Your task to perform on an android device: Open the calendar and show me this week's events Image 0: 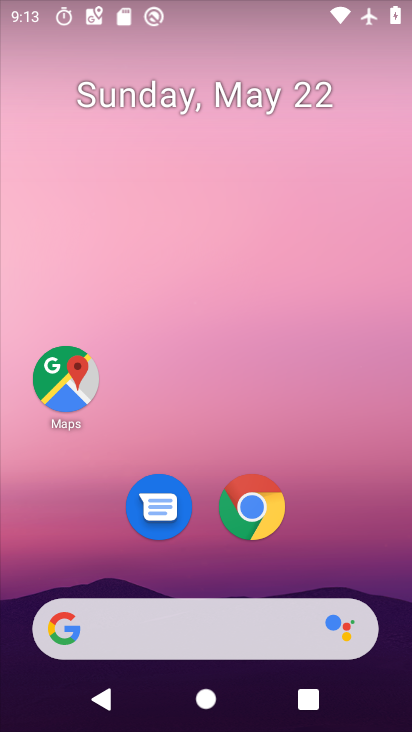
Step 0: click (256, 115)
Your task to perform on an android device: Open the calendar and show me this week's events Image 1: 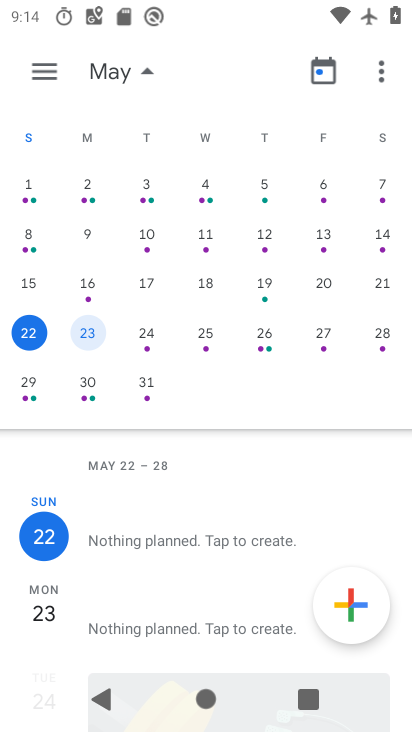
Step 1: click (49, 73)
Your task to perform on an android device: Open the calendar and show me this week's events Image 2: 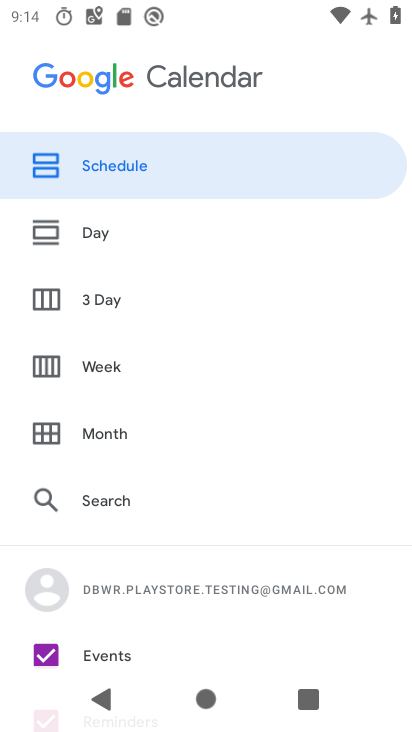
Step 2: drag from (145, 631) to (248, 109)
Your task to perform on an android device: Open the calendar and show me this week's events Image 3: 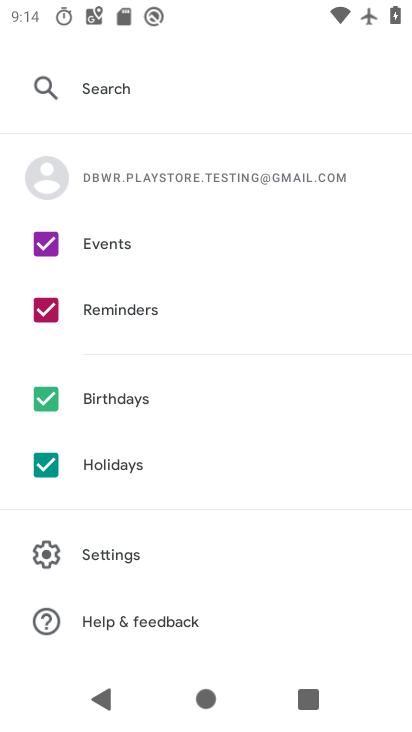
Step 3: click (50, 460)
Your task to perform on an android device: Open the calendar and show me this week's events Image 4: 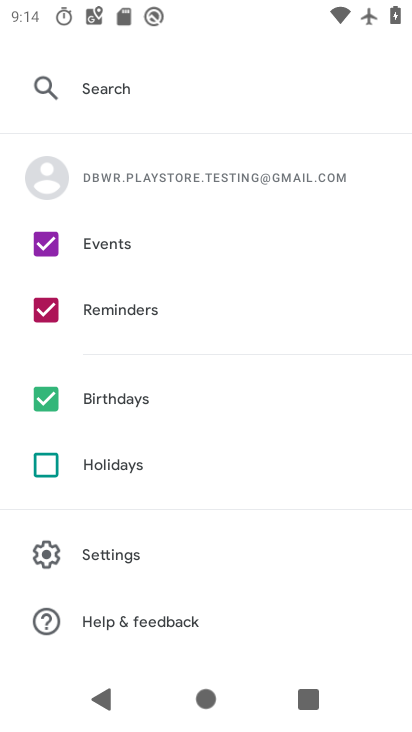
Step 4: click (47, 384)
Your task to perform on an android device: Open the calendar and show me this week's events Image 5: 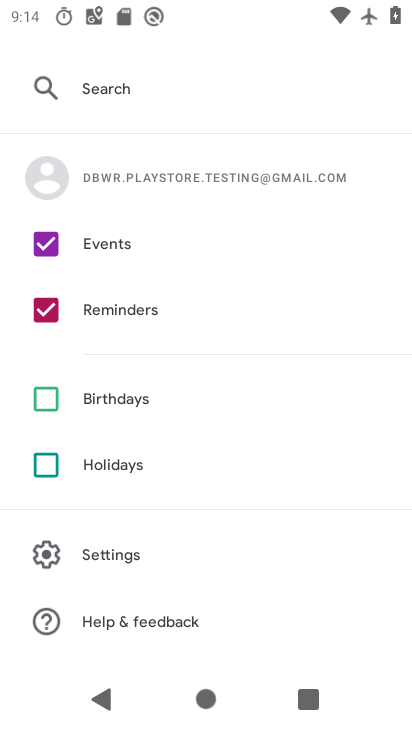
Step 5: click (44, 302)
Your task to perform on an android device: Open the calendar and show me this week's events Image 6: 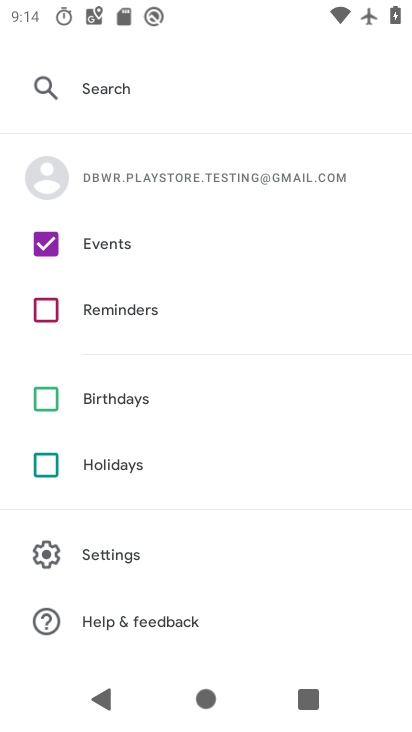
Step 6: drag from (131, 143) to (55, 721)
Your task to perform on an android device: Open the calendar and show me this week's events Image 7: 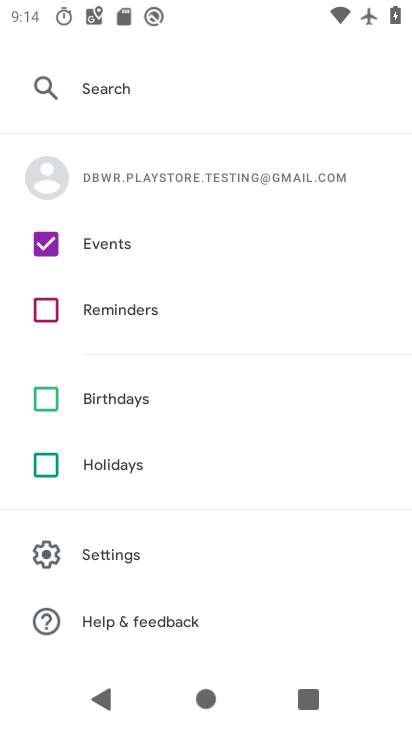
Step 7: drag from (159, 158) to (103, 595)
Your task to perform on an android device: Open the calendar and show me this week's events Image 8: 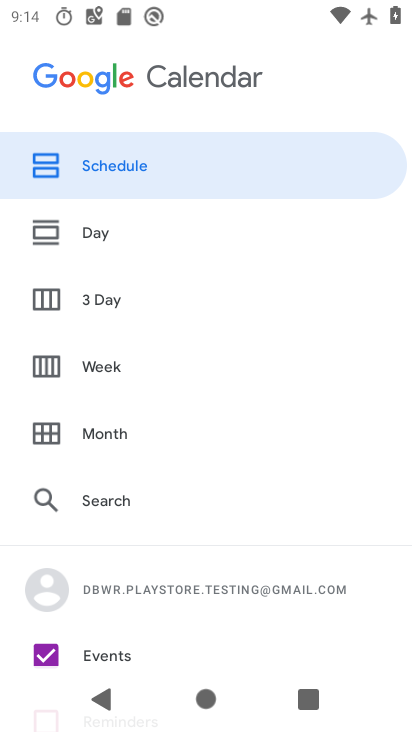
Step 8: drag from (120, 160) to (83, 334)
Your task to perform on an android device: Open the calendar and show me this week's events Image 9: 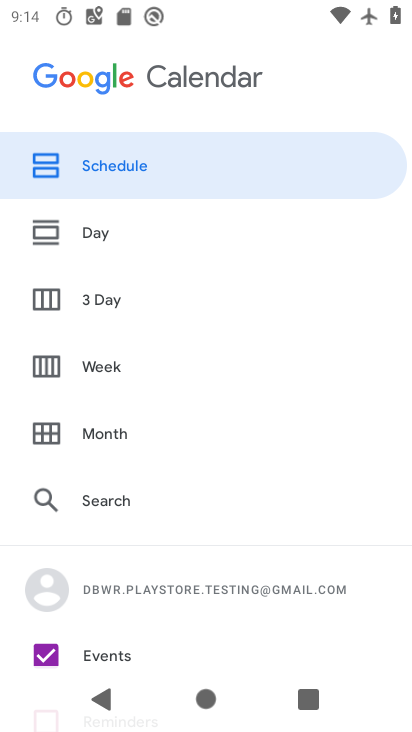
Step 9: click (99, 372)
Your task to perform on an android device: Open the calendar and show me this week's events Image 10: 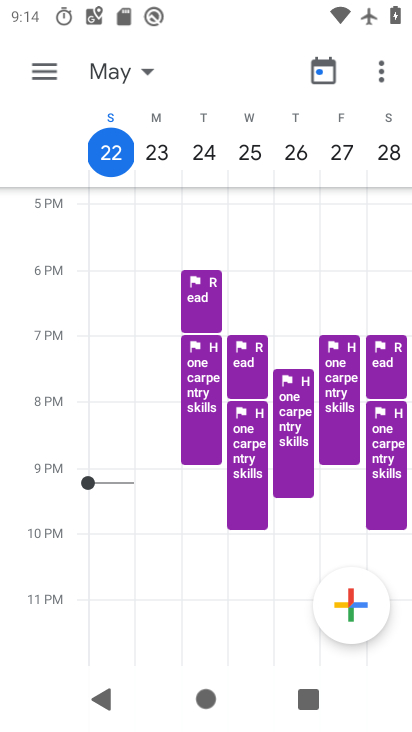
Step 10: task complete